Your task to perform on an android device: Open the web browser Image 0: 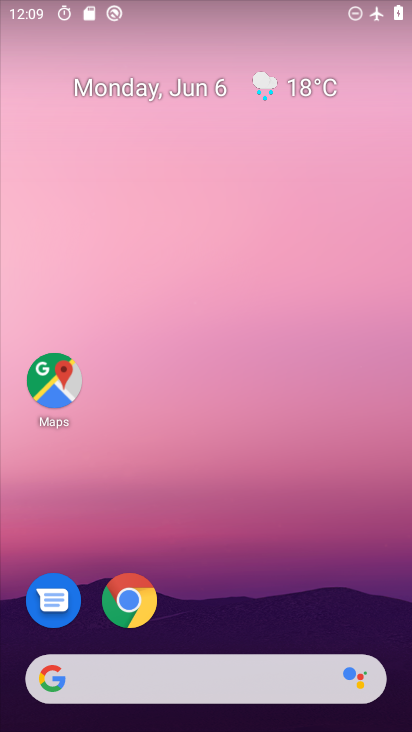
Step 0: click (133, 620)
Your task to perform on an android device: Open the web browser Image 1: 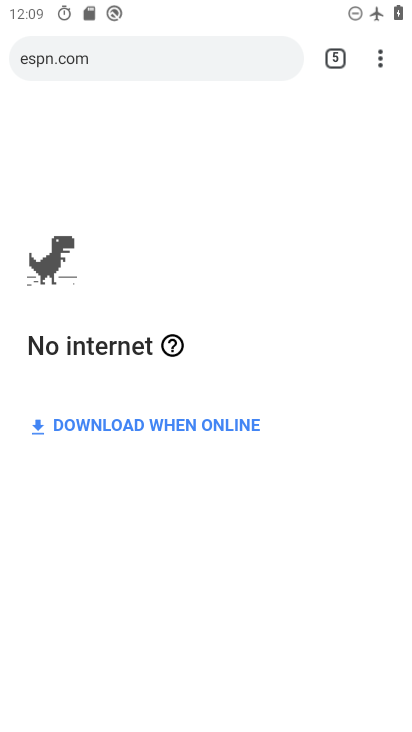
Step 1: task complete